Your task to perform on an android device: What's the weather today? Image 0: 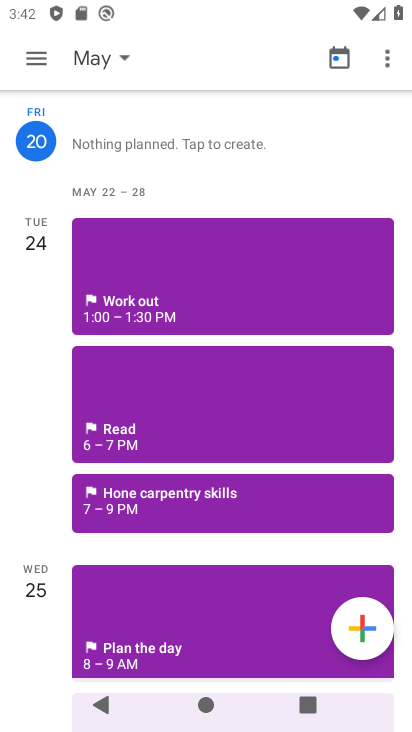
Step 0: press home button
Your task to perform on an android device: What's the weather today? Image 1: 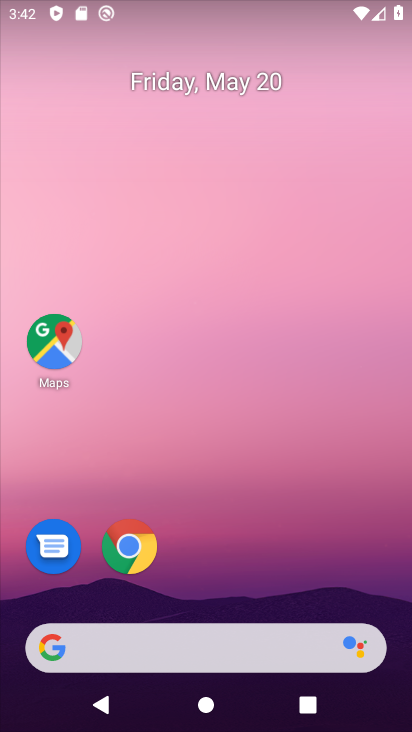
Step 1: click (144, 548)
Your task to perform on an android device: What's the weather today? Image 2: 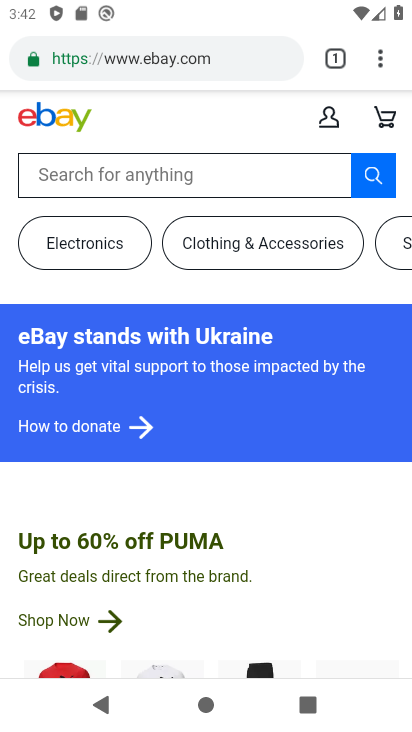
Step 2: click (210, 55)
Your task to perform on an android device: What's the weather today? Image 3: 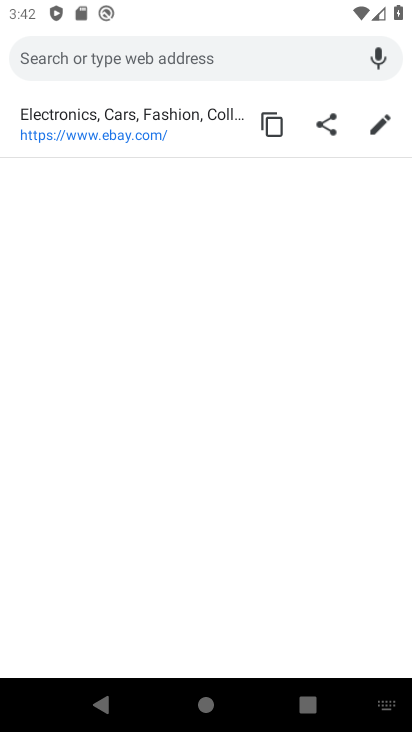
Step 3: type "weather"
Your task to perform on an android device: What's the weather today? Image 4: 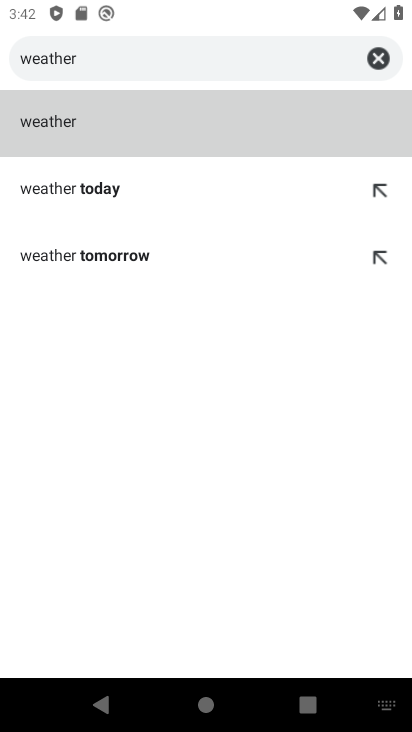
Step 4: click (44, 118)
Your task to perform on an android device: What's the weather today? Image 5: 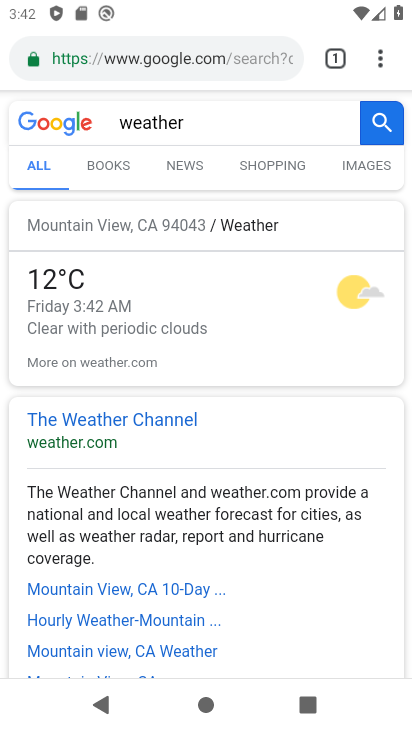
Step 5: task complete